Your task to perform on an android device: check data usage Image 0: 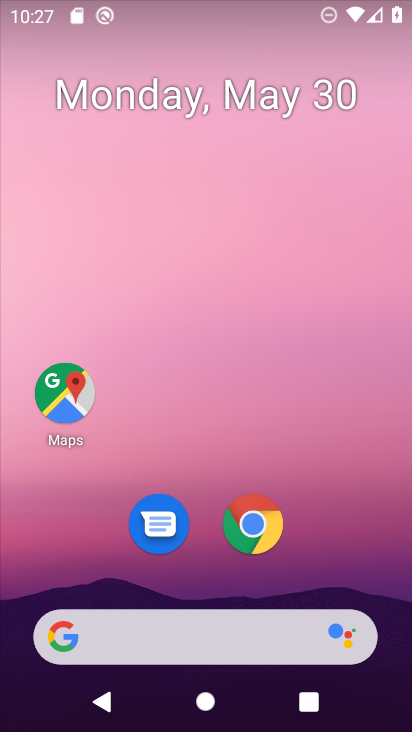
Step 0: drag from (331, 542) to (309, 42)
Your task to perform on an android device: check data usage Image 1: 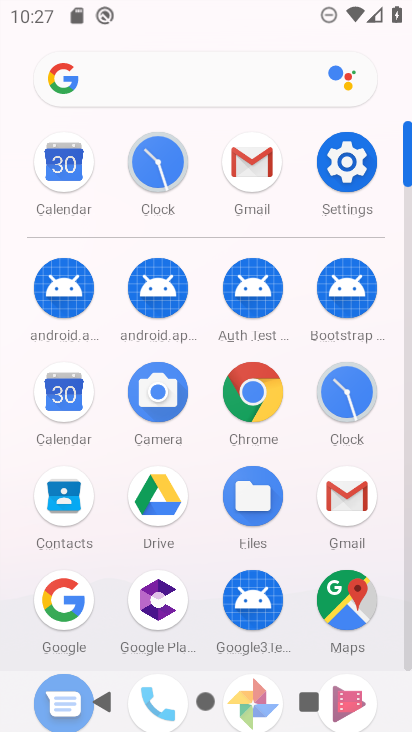
Step 1: click (348, 148)
Your task to perform on an android device: check data usage Image 2: 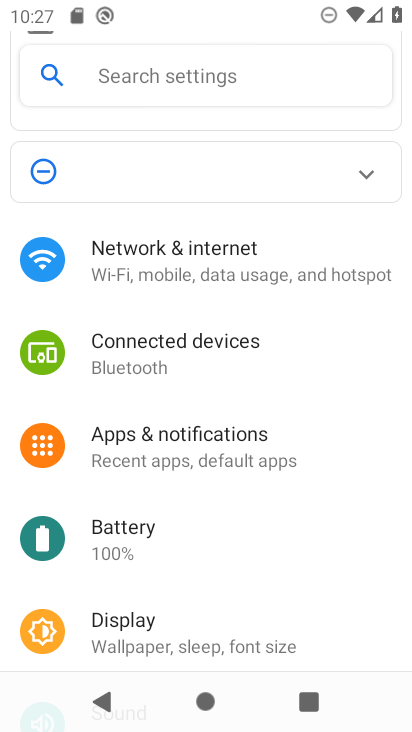
Step 2: click (223, 247)
Your task to perform on an android device: check data usage Image 3: 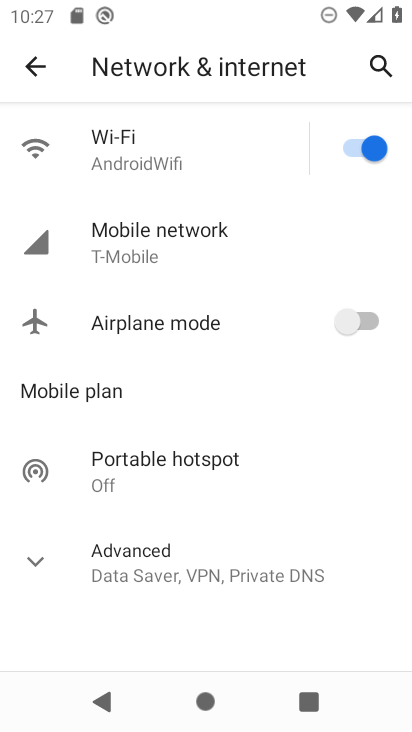
Step 3: click (222, 247)
Your task to perform on an android device: check data usage Image 4: 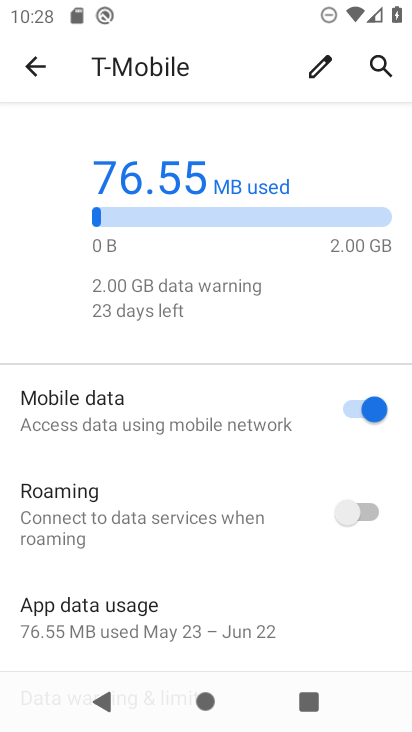
Step 4: task complete